Your task to perform on an android device: Go to Google Image 0: 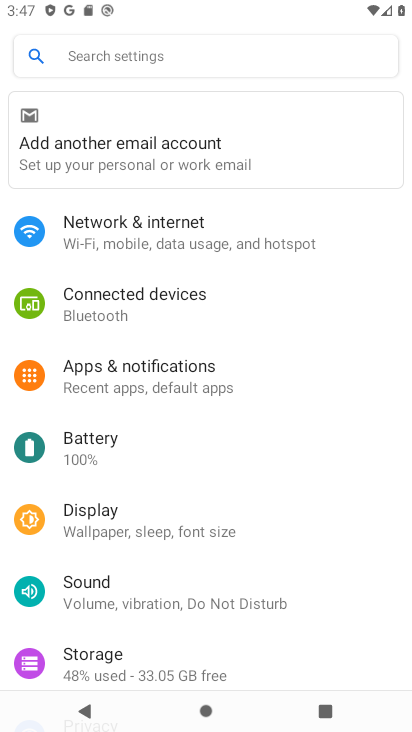
Step 0: press home button
Your task to perform on an android device: Go to Google Image 1: 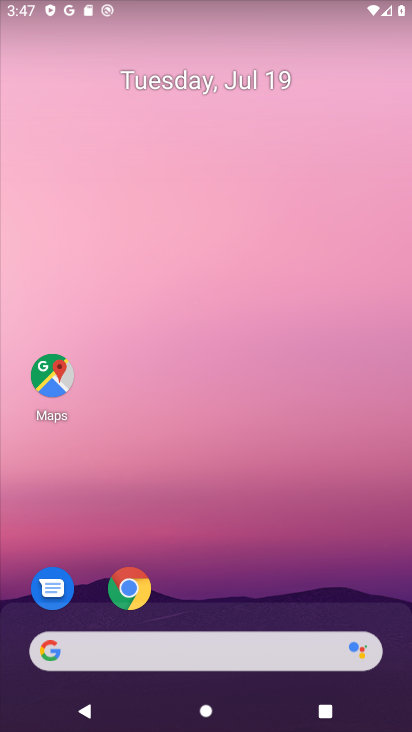
Step 1: drag from (209, 633) to (244, 221)
Your task to perform on an android device: Go to Google Image 2: 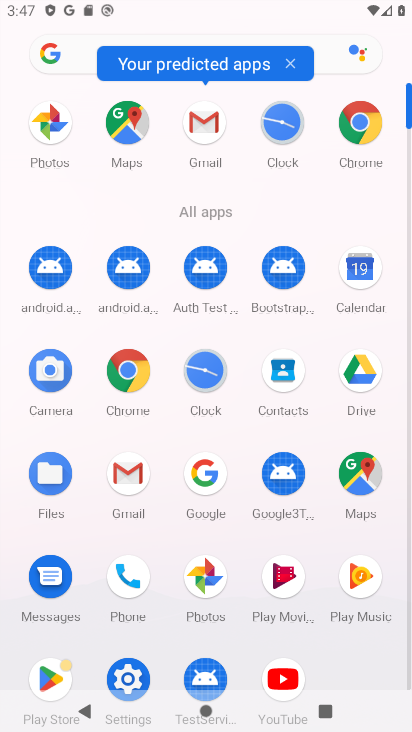
Step 2: click (208, 478)
Your task to perform on an android device: Go to Google Image 3: 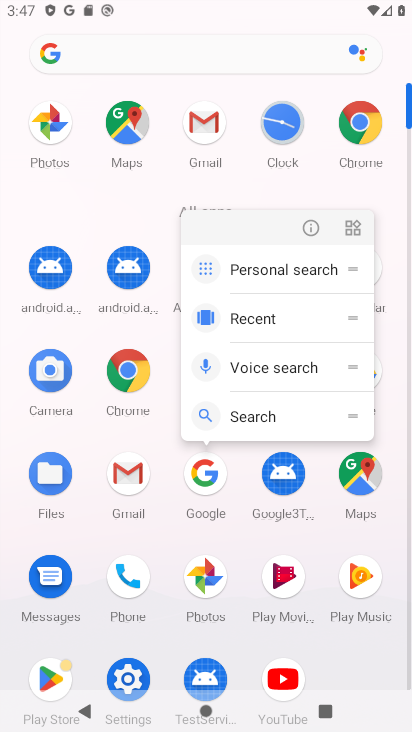
Step 3: click (208, 478)
Your task to perform on an android device: Go to Google Image 4: 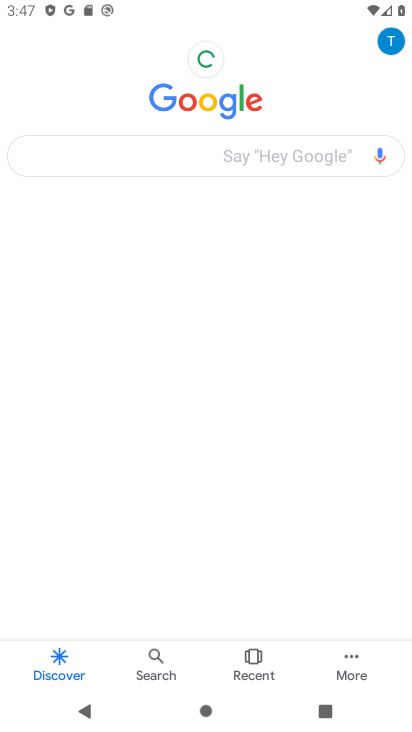
Step 4: task complete